Your task to perform on an android device: turn on wifi Image 0: 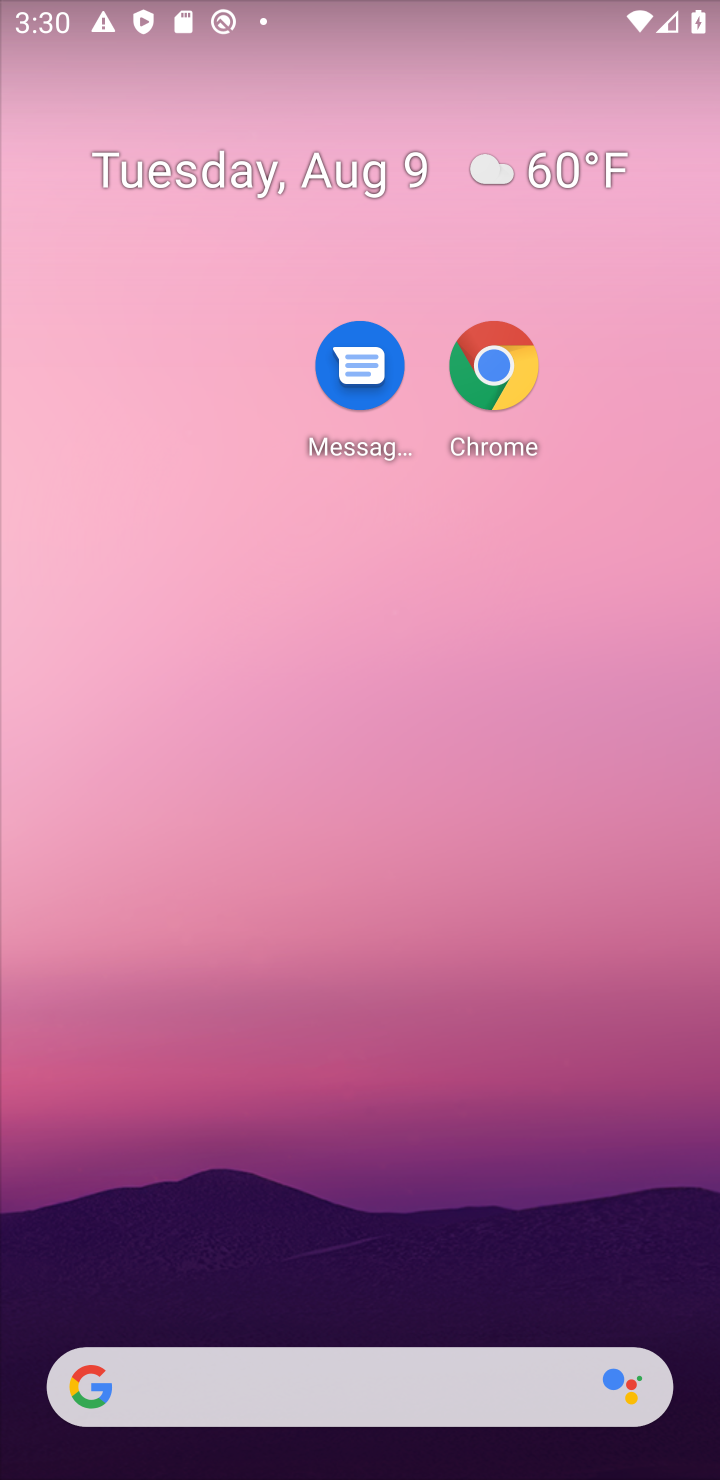
Step 0: drag from (466, 1014) to (498, 292)
Your task to perform on an android device: turn on wifi Image 1: 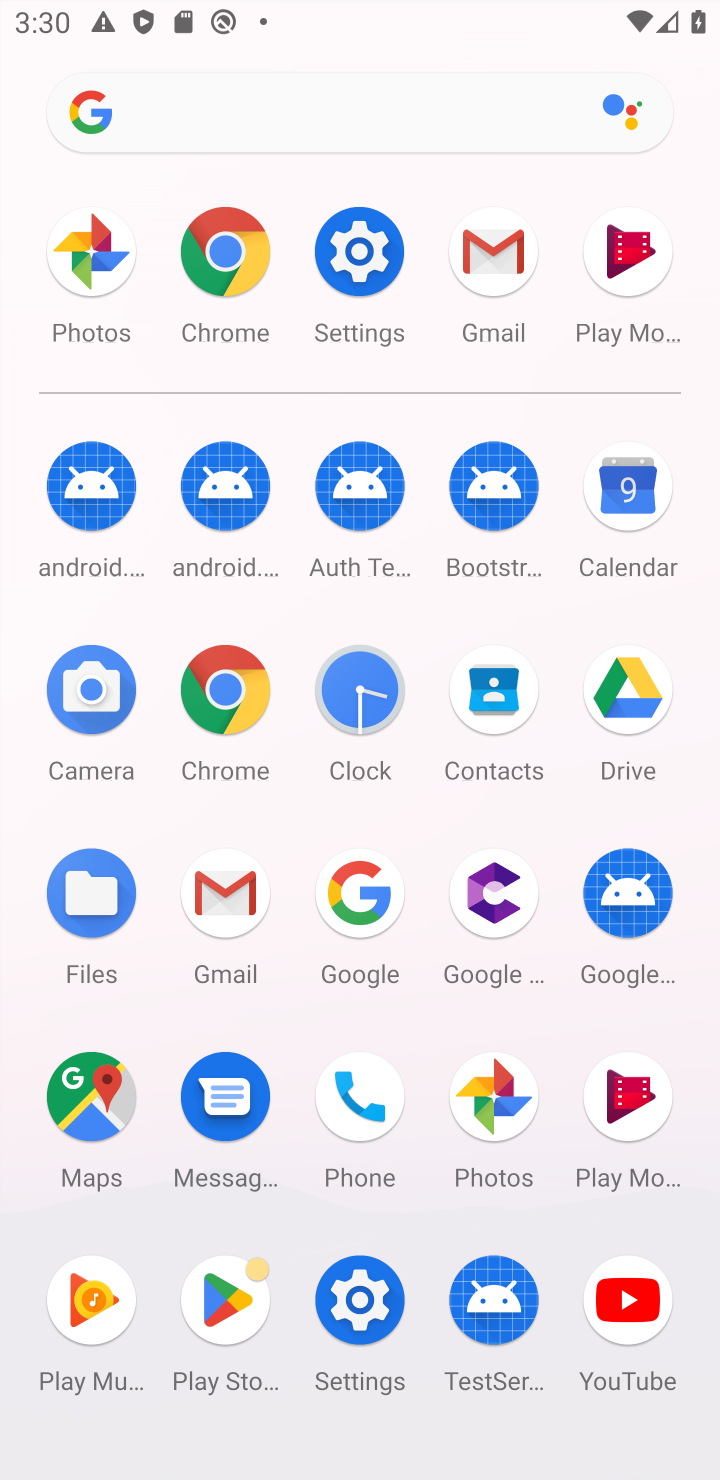
Step 1: click (349, 236)
Your task to perform on an android device: turn on wifi Image 2: 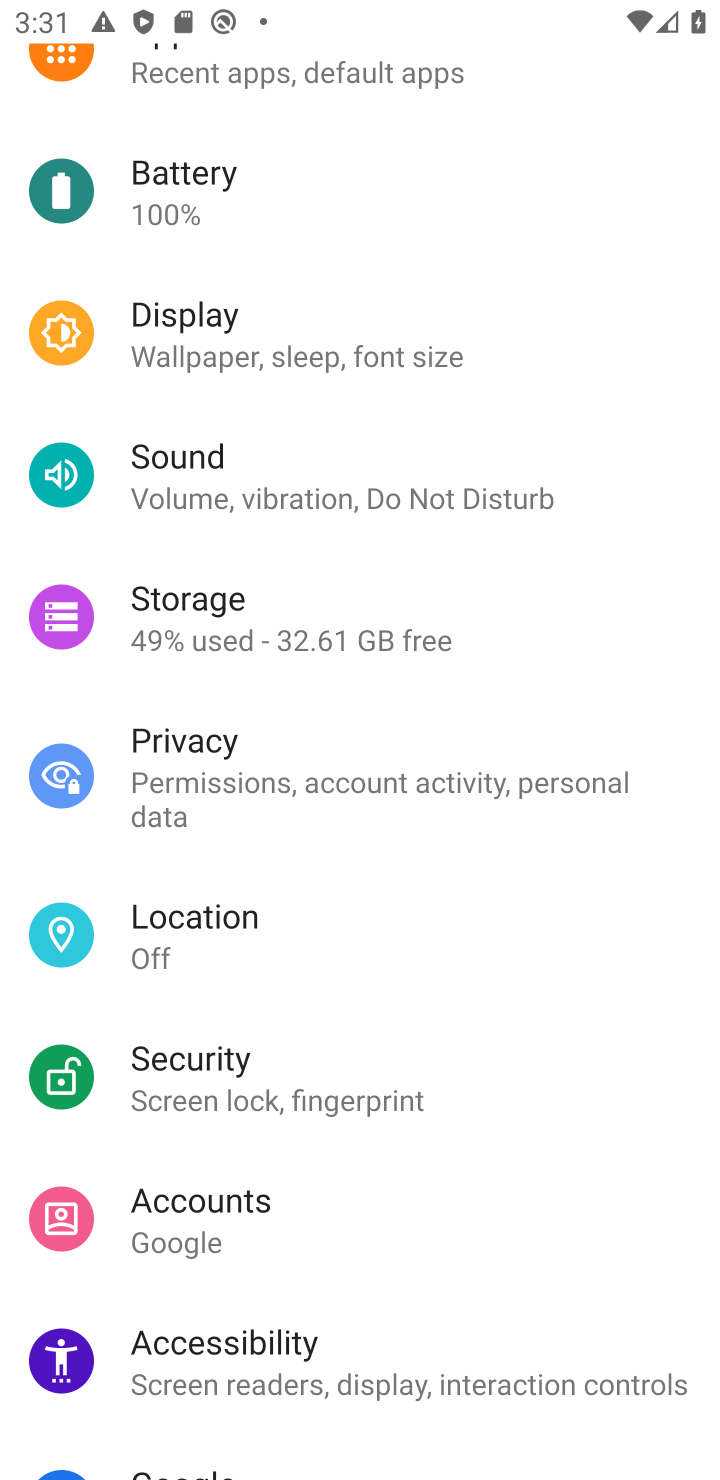
Step 2: drag from (253, 189) to (241, 1299)
Your task to perform on an android device: turn on wifi Image 3: 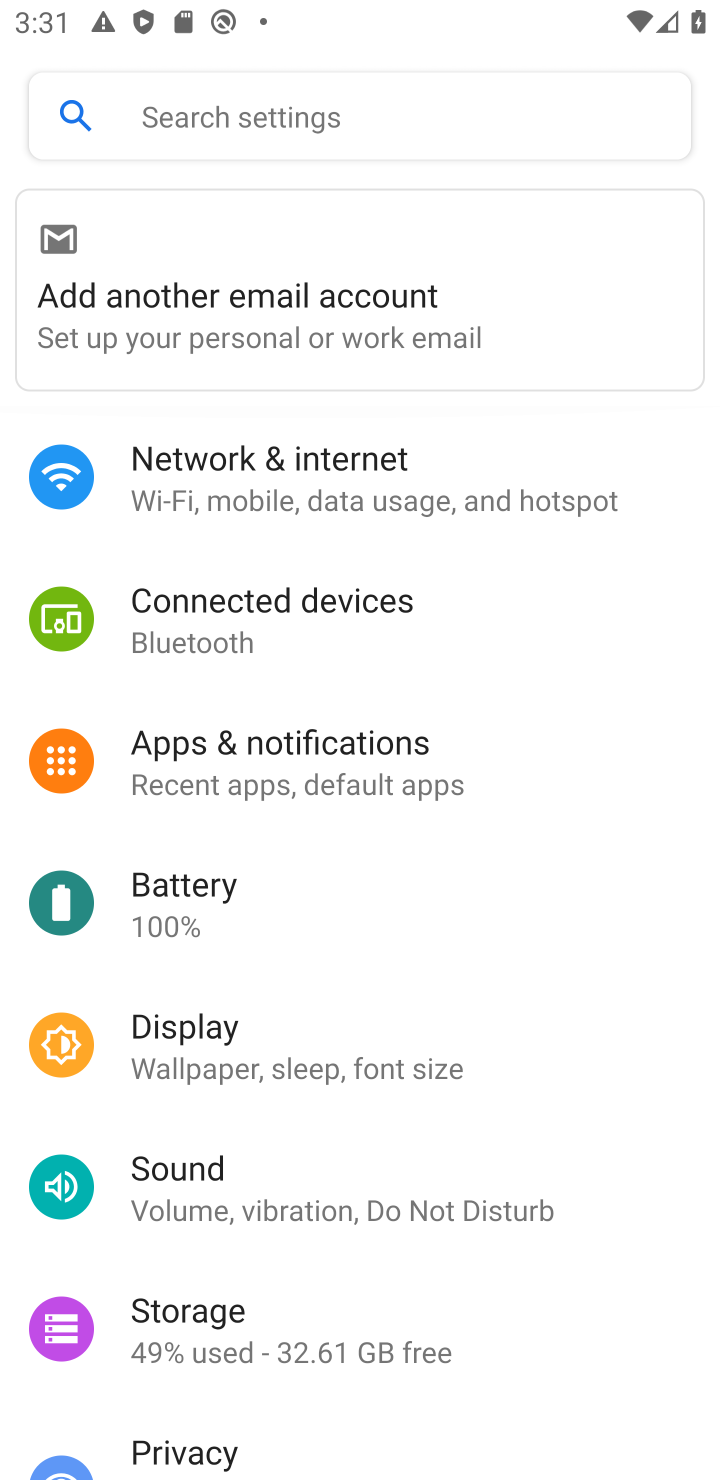
Step 3: click (271, 246)
Your task to perform on an android device: turn on wifi Image 4: 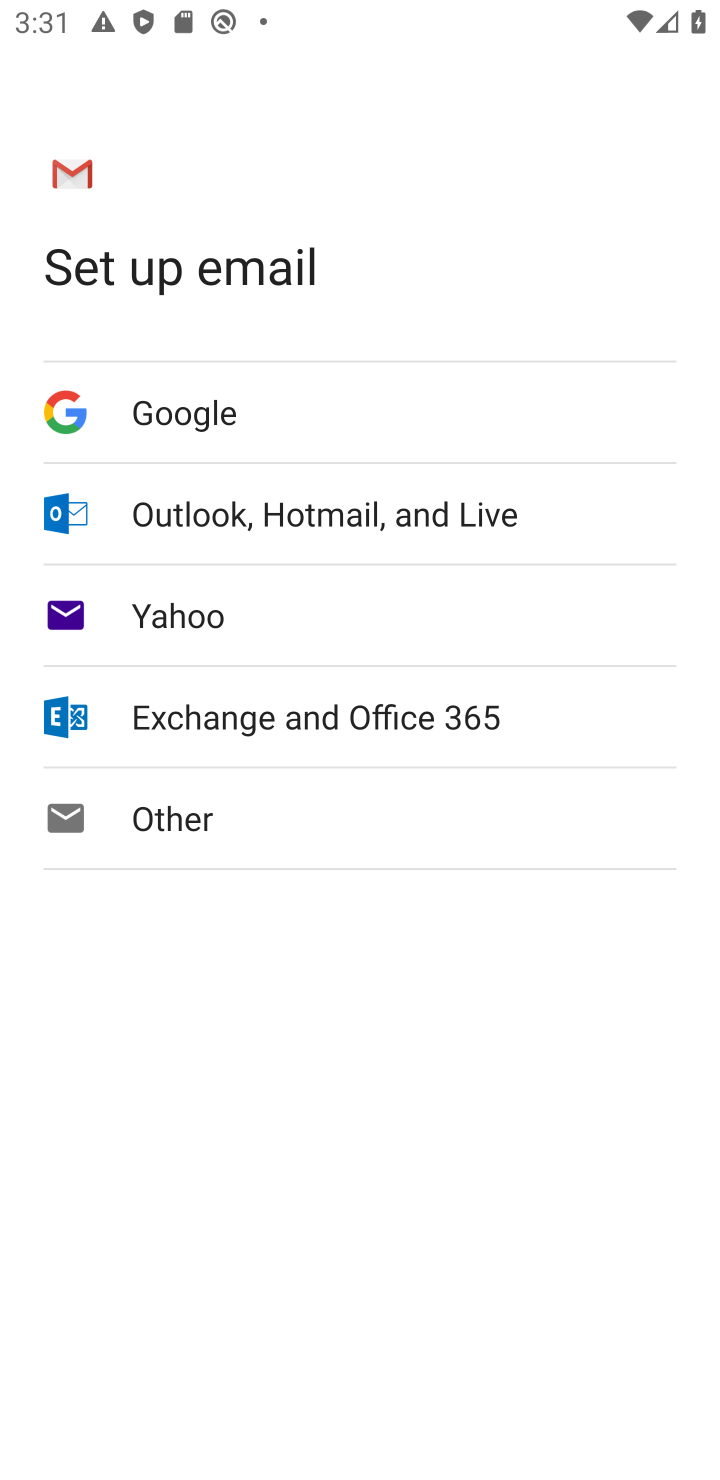
Step 4: press back button
Your task to perform on an android device: turn on wifi Image 5: 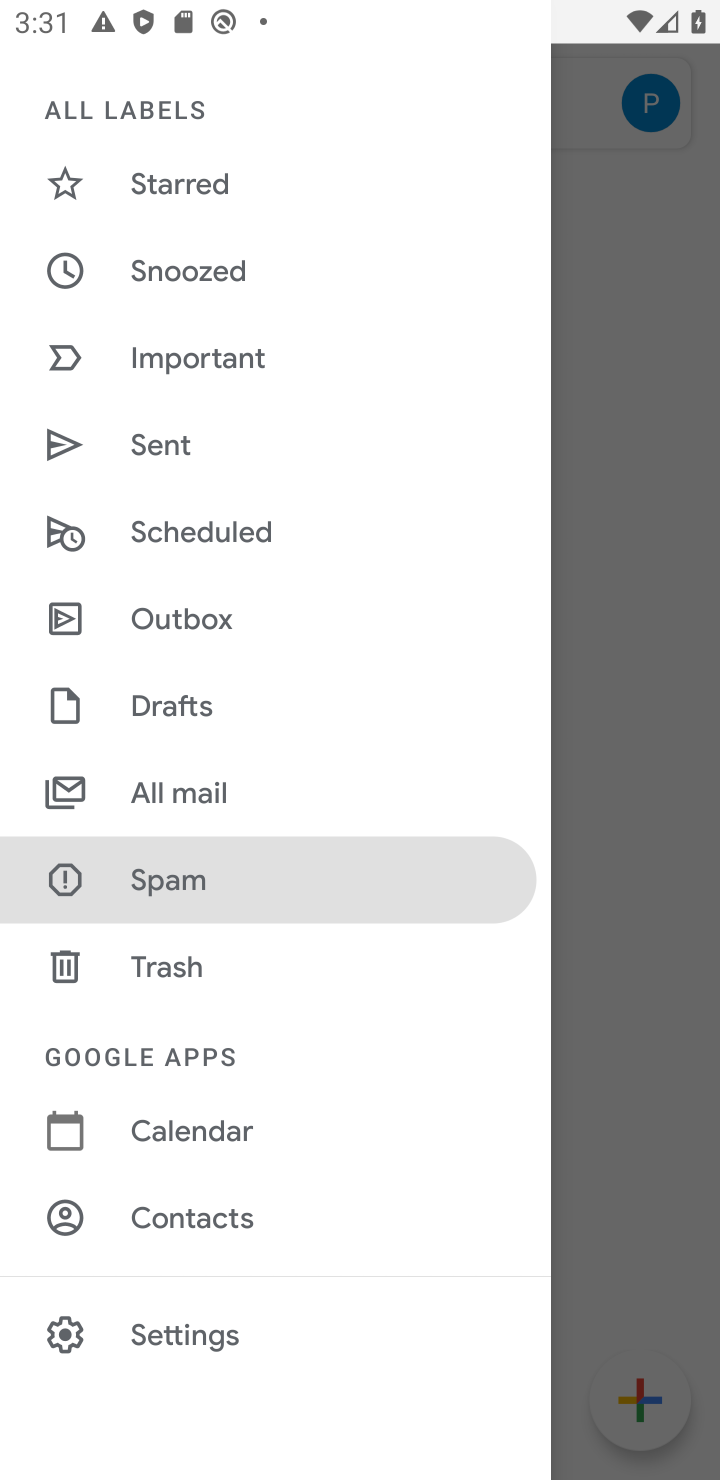
Step 5: press home button
Your task to perform on an android device: turn on wifi Image 6: 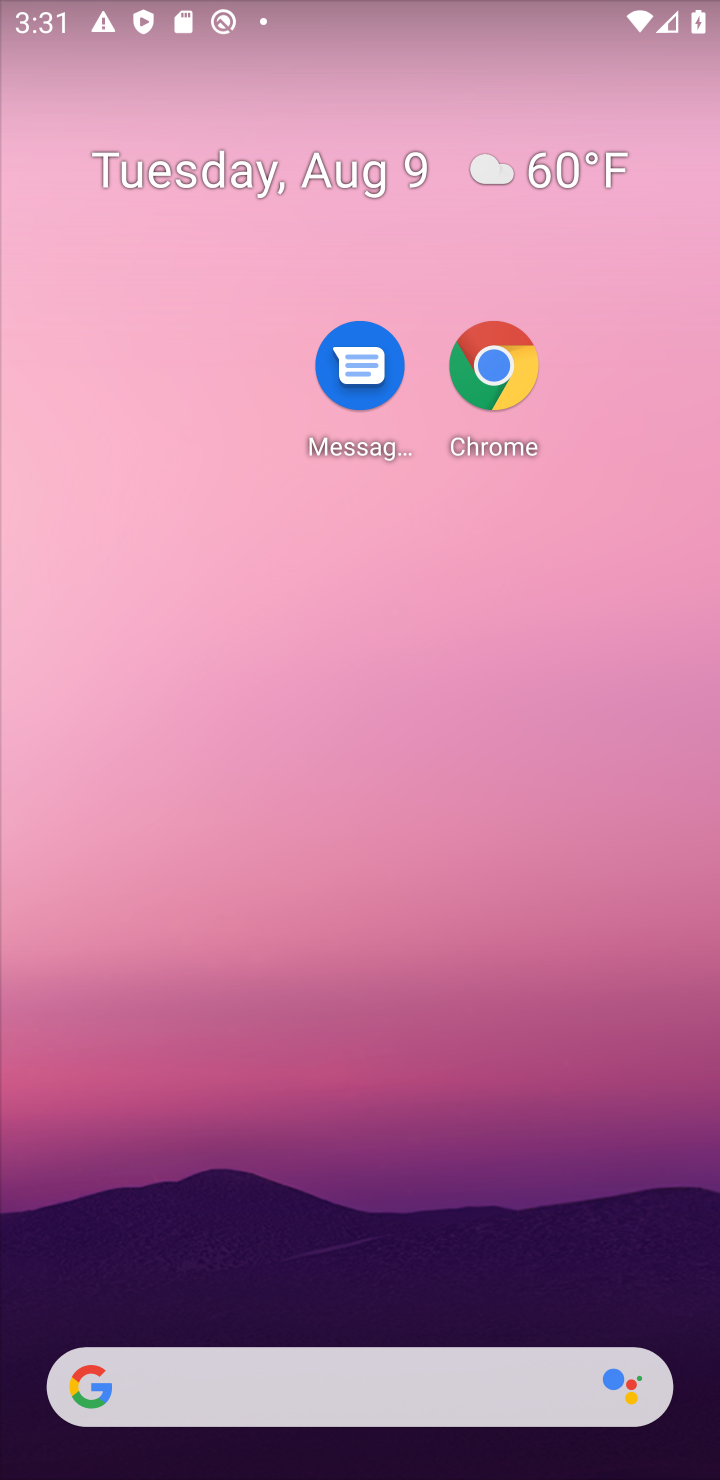
Step 6: drag from (421, 1230) to (478, 196)
Your task to perform on an android device: turn on wifi Image 7: 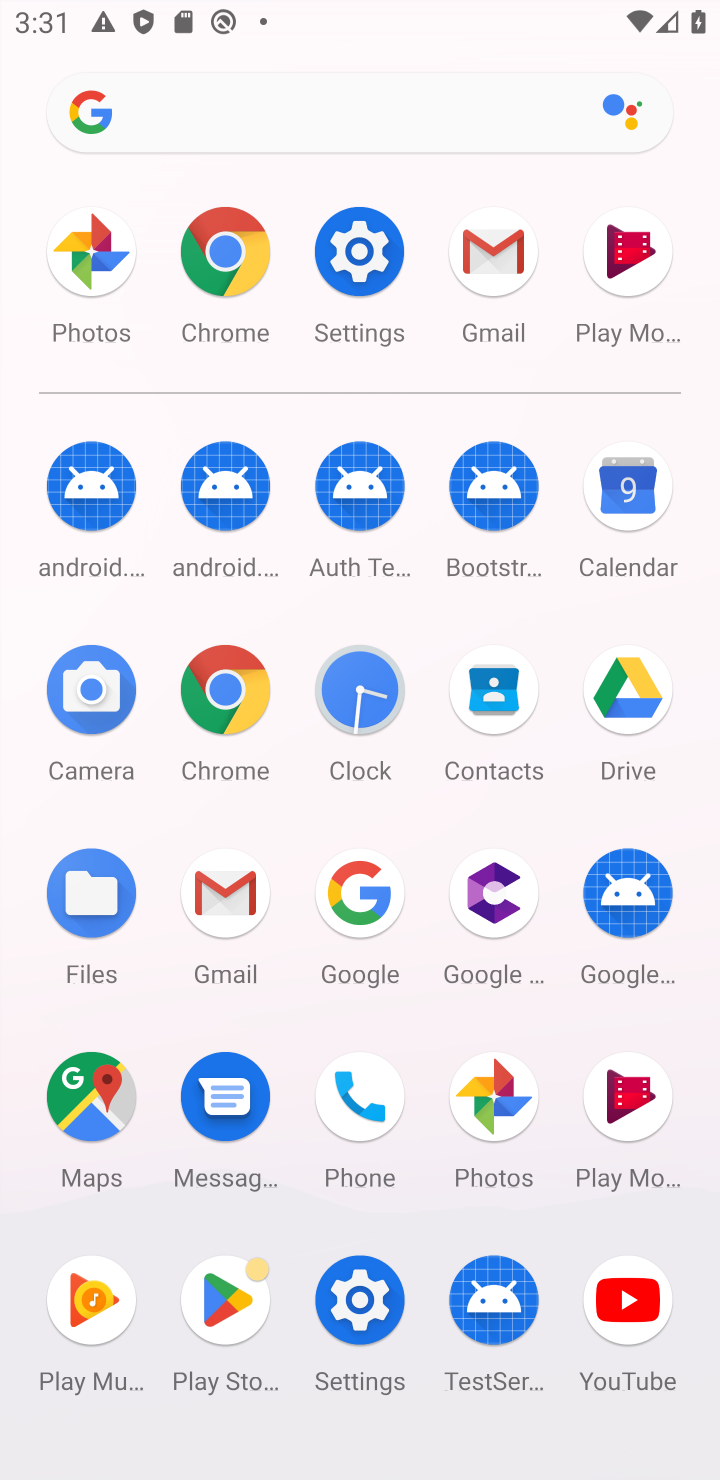
Step 7: click (337, 247)
Your task to perform on an android device: turn on wifi Image 8: 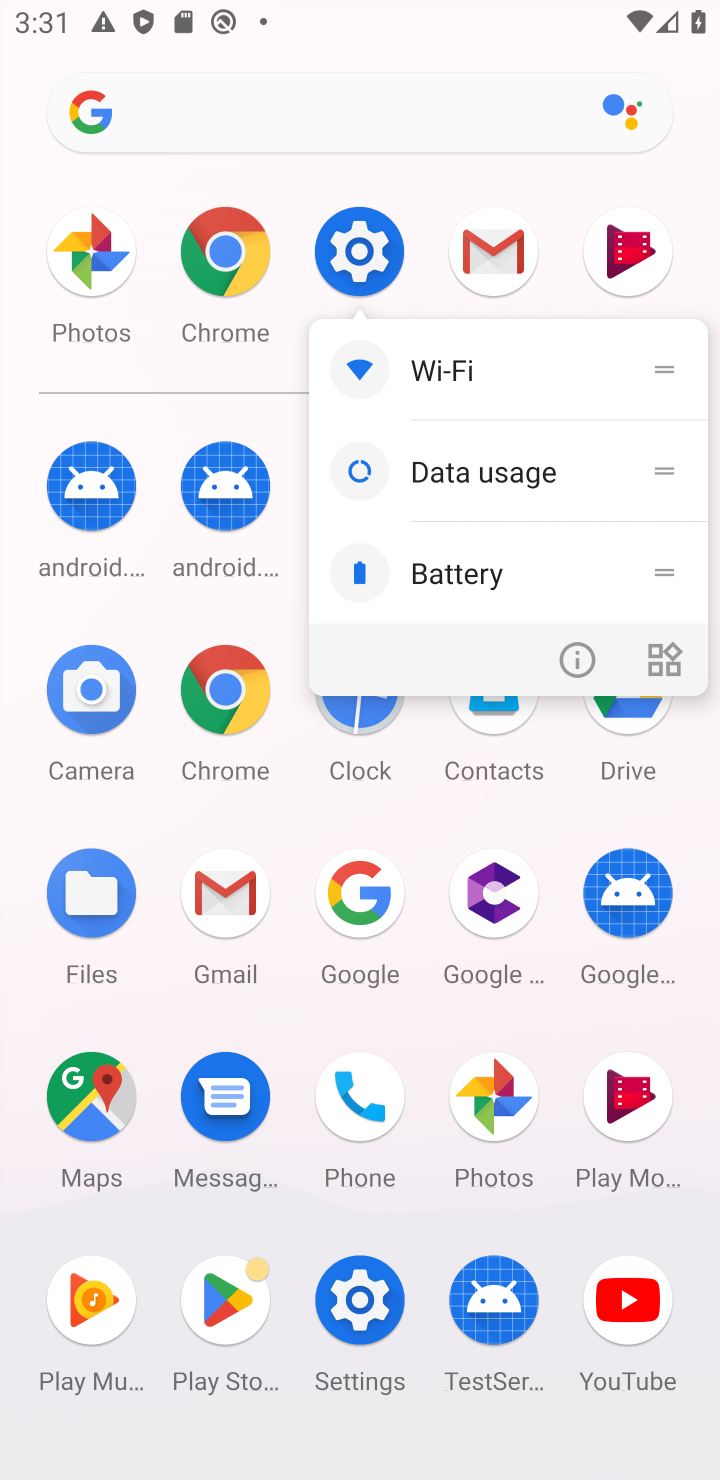
Step 8: click (345, 247)
Your task to perform on an android device: turn on wifi Image 9: 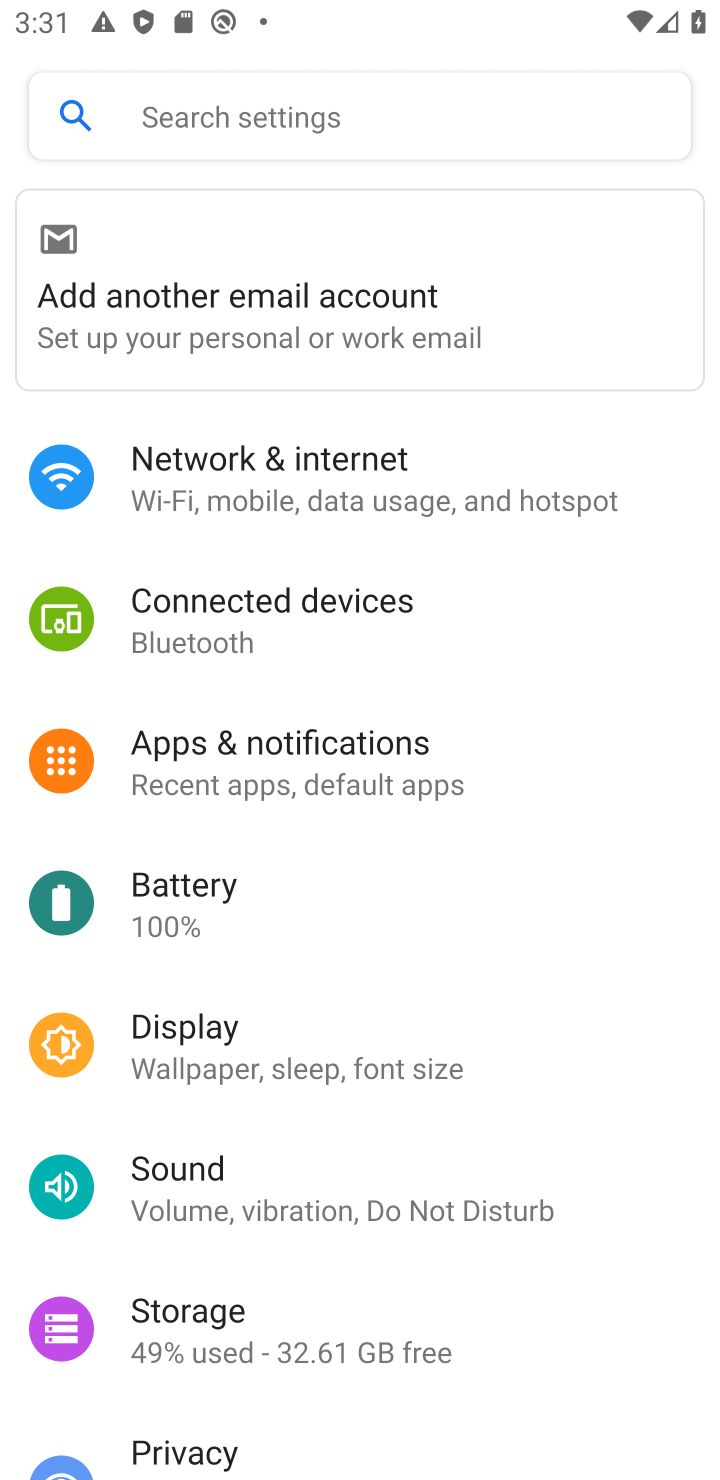
Step 9: click (293, 480)
Your task to perform on an android device: turn on wifi Image 10: 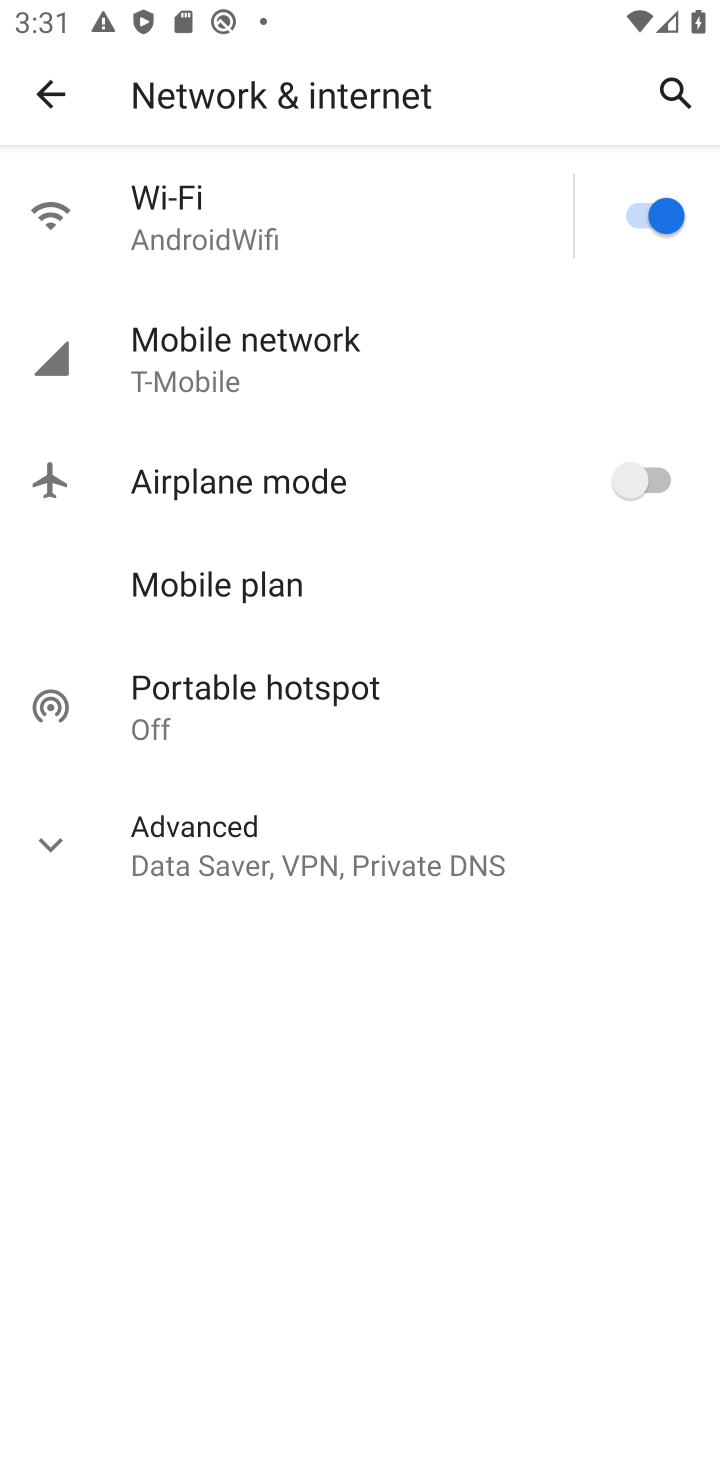
Step 10: click (239, 205)
Your task to perform on an android device: turn on wifi Image 11: 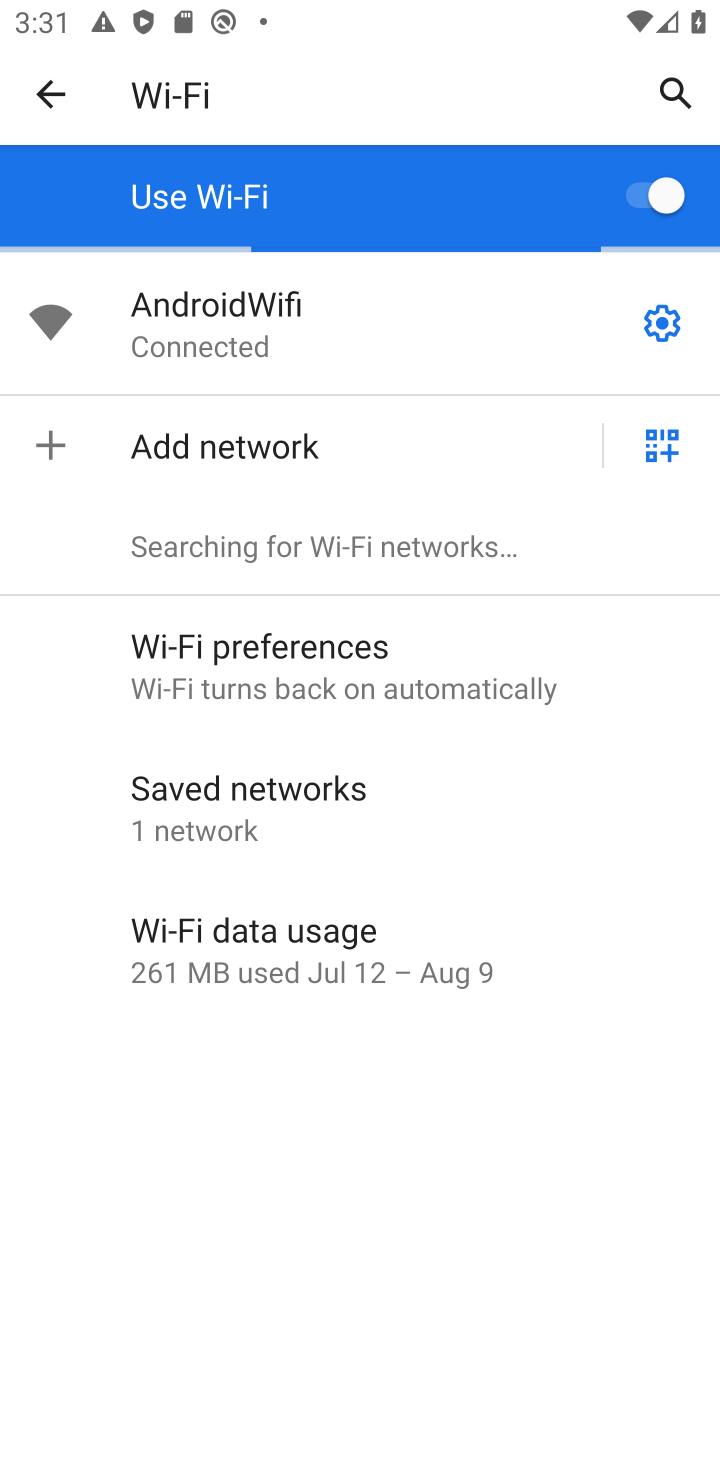
Step 11: task complete